Your task to perform on an android device: turn off location Image 0: 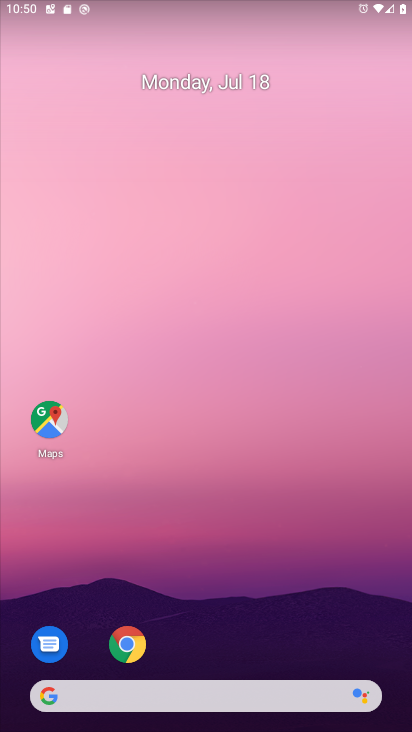
Step 0: drag from (284, 668) to (288, 63)
Your task to perform on an android device: turn off location Image 1: 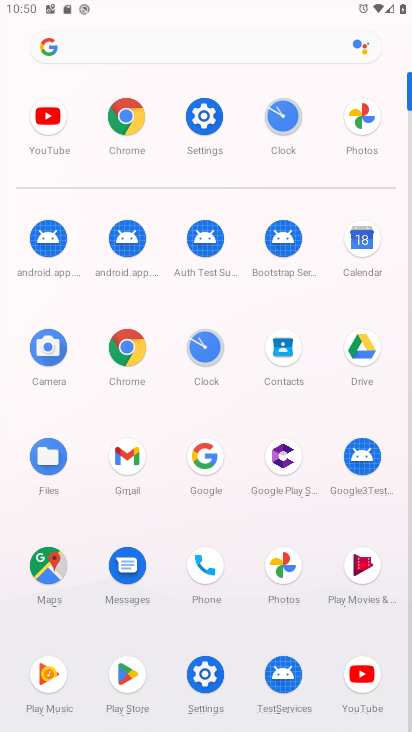
Step 1: click (226, 141)
Your task to perform on an android device: turn off location Image 2: 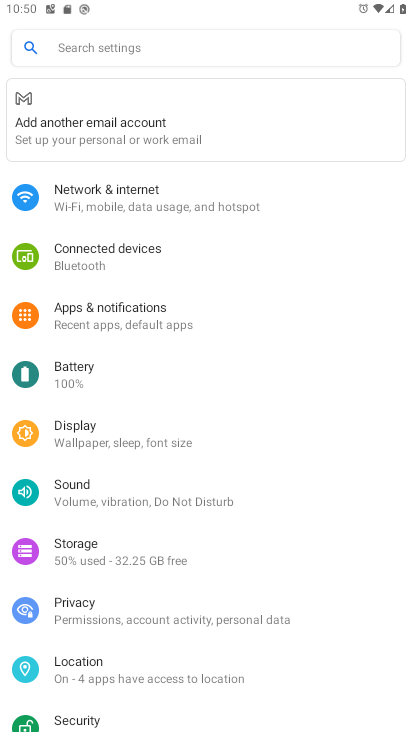
Step 2: click (115, 656)
Your task to perform on an android device: turn off location Image 3: 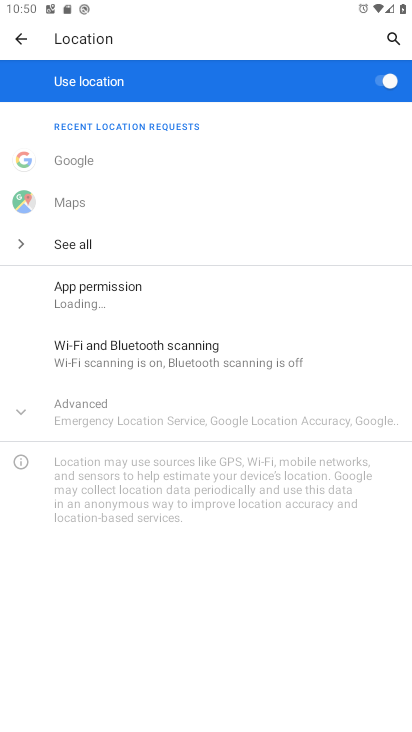
Step 3: task complete